Your task to perform on an android device: See recent photos Image 0: 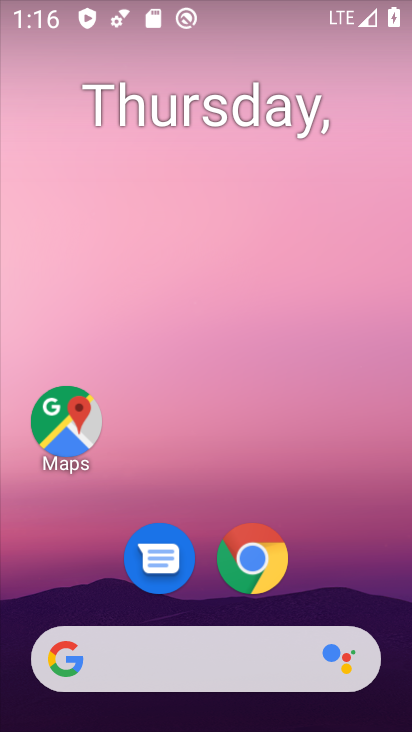
Step 0: drag from (350, 570) to (243, 67)
Your task to perform on an android device: See recent photos Image 1: 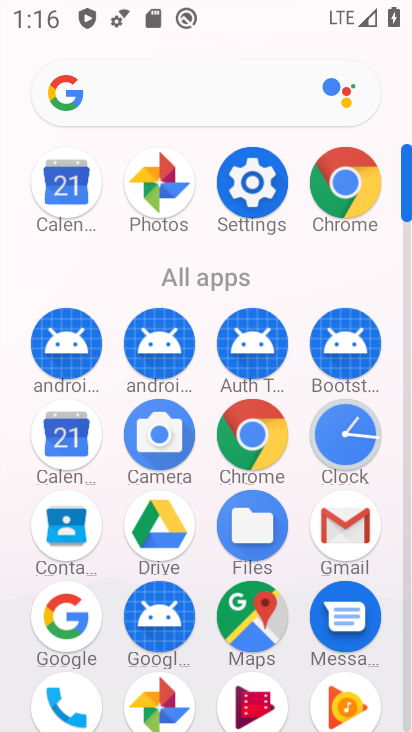
Step 1: click (171, 183)
Your task to perform on an android device: See recent photos Image 2: 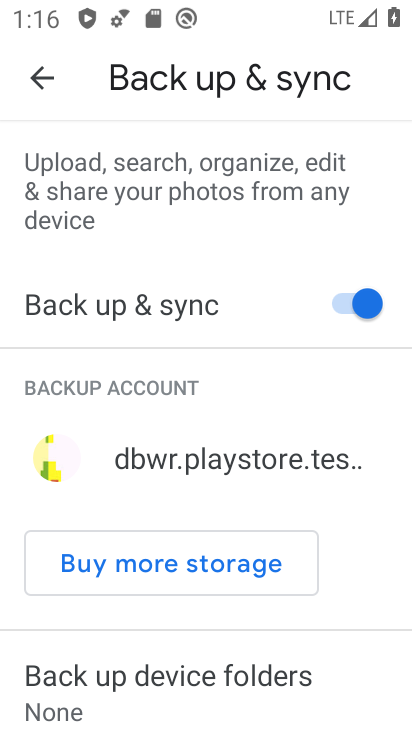
Step 2: click (30, 70)
Your task to perform on an android device: See recent photos Image 3: 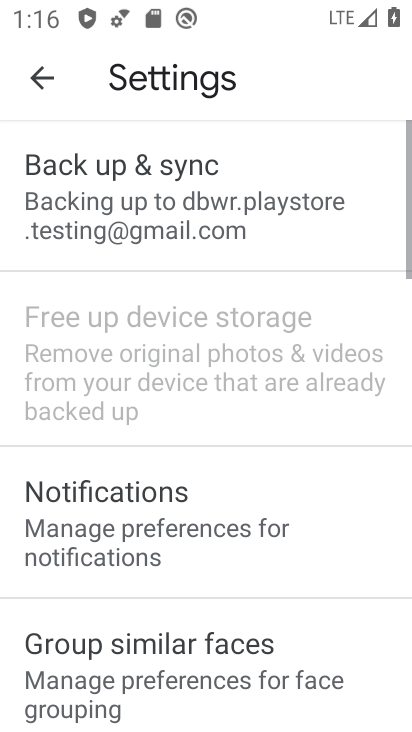
Step 3: click (30, 70)
Your task to perform on an android device: See recent photos Image 4: 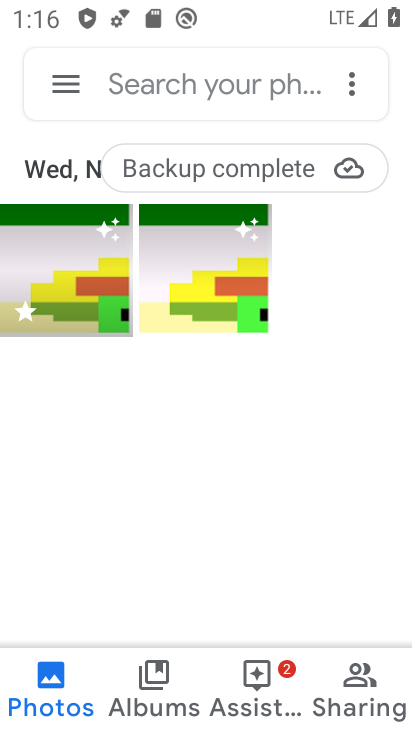
Step 4: task complete